Your task to perform on an android device: star an email in the gmail app Image 0: 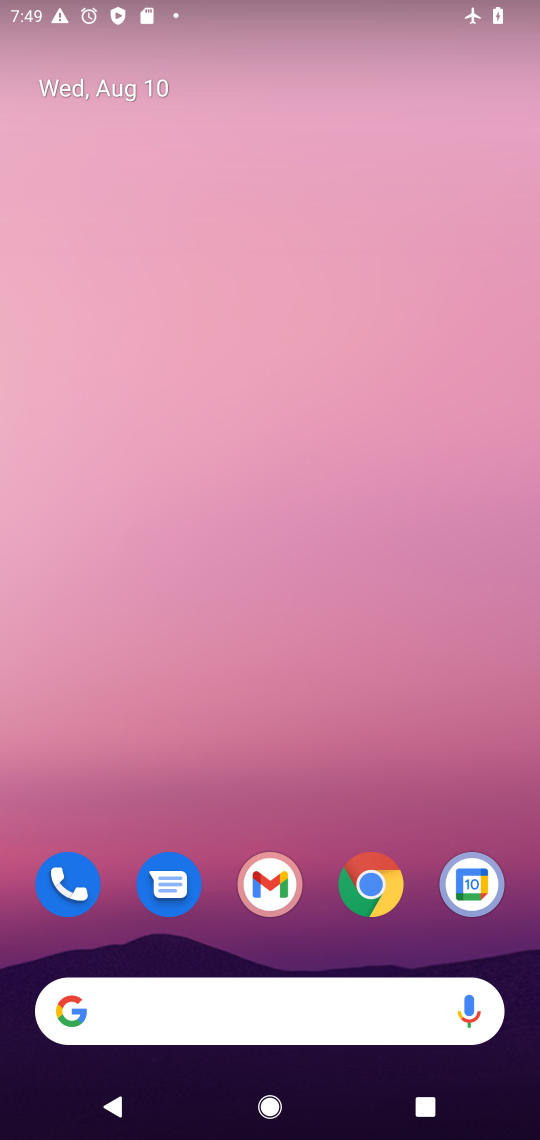
Step 0: click (265, 880)
Your task to perform on an android device: star an email in the gmail app Image 1: 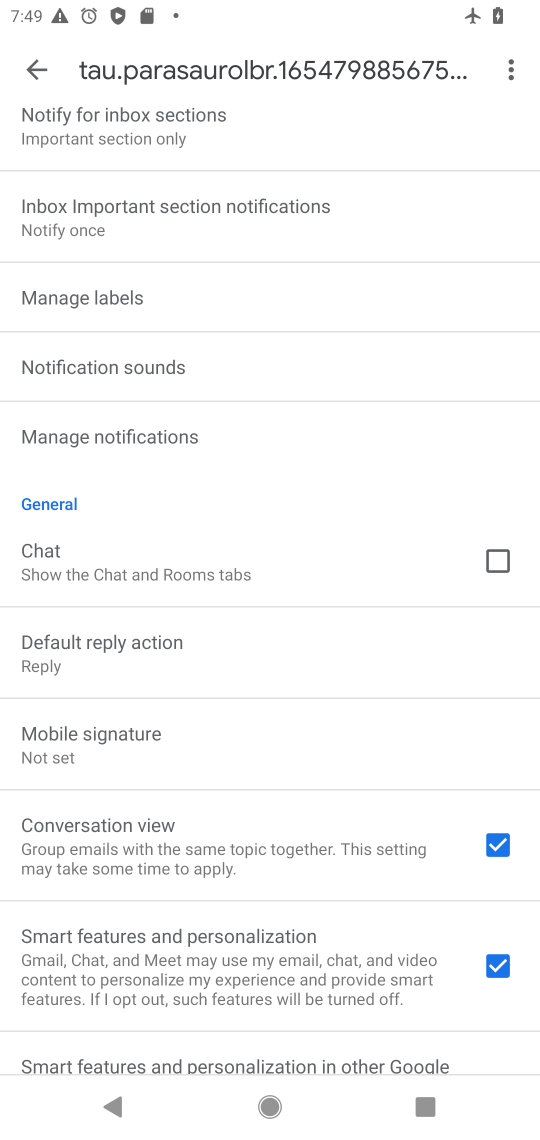
Step 1: click (30, 74)
Your task to perform on an android device: star an email in the gmail app Image 2: 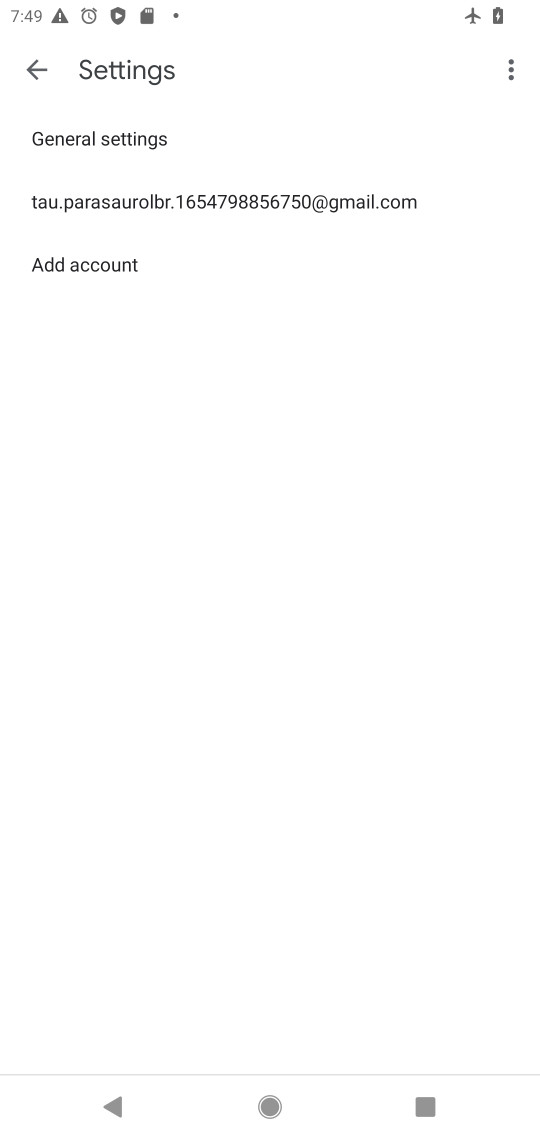
Step 2: click (30, 74)
Your task to perform on an android device: star an email in the gmail app Image 3: 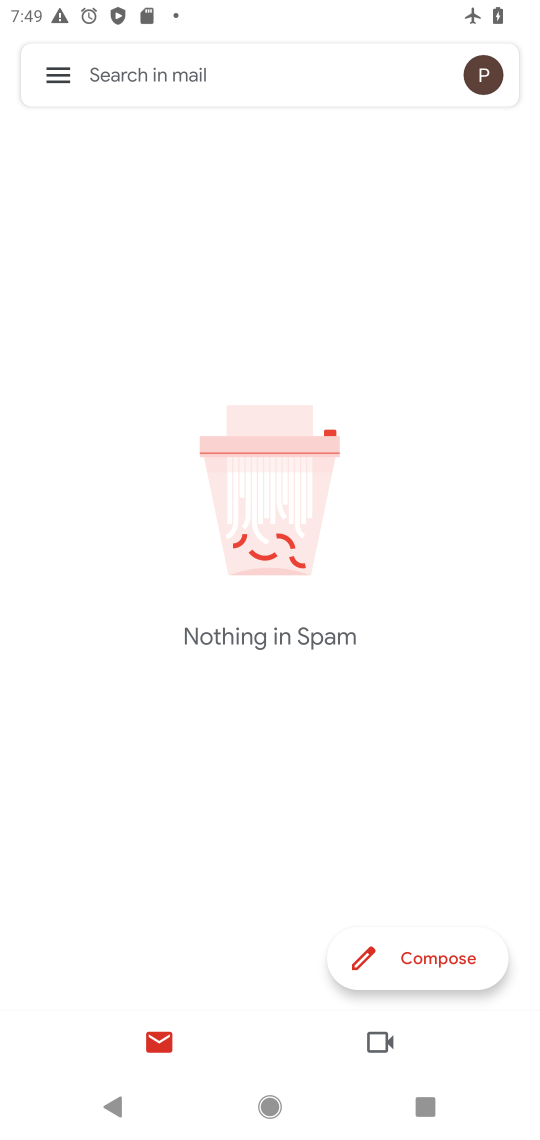
Step 3: click (55, 62)
Your task to perform on an android device: star an email in the gmail app Image 4: 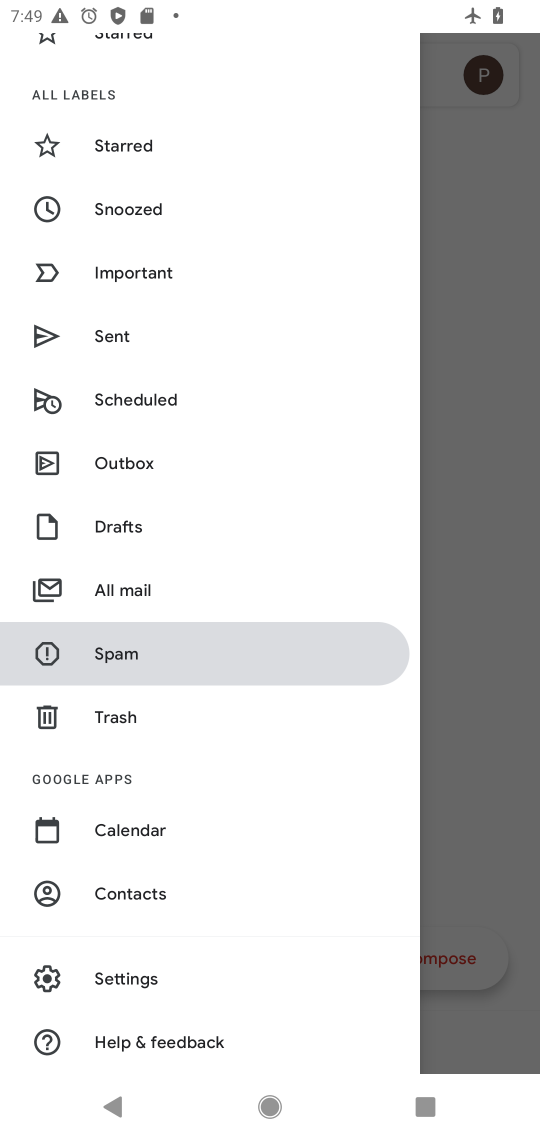
Step 4: click (114, 145)
Your task to perform on an android device: star an email in the gmail app Image 5: 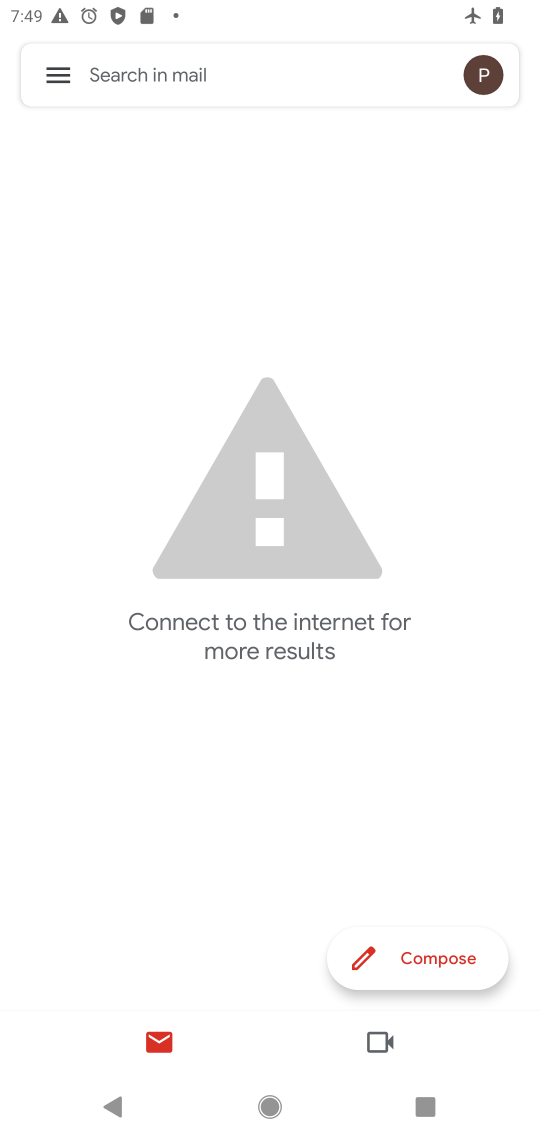
Step 5: task complete